Your task to perform on an android device: empty trash in the gmail app Image 0: 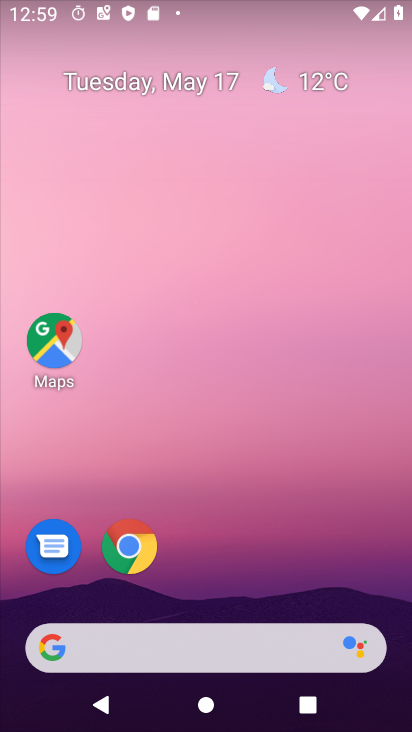
Step 0: drag from (202, 640) to (337, 169)
Your task to perform on an android device: empty trash in the gmail app Image 1: 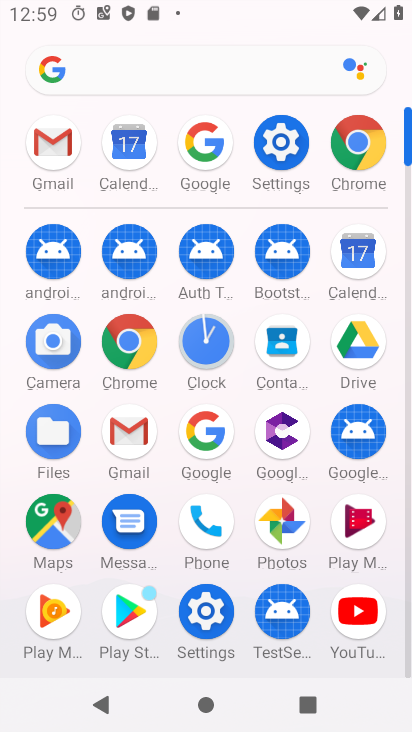
Step 1: click (42, 151)
Your task to perform on an android device: empty trash in the gmail app Image 2: 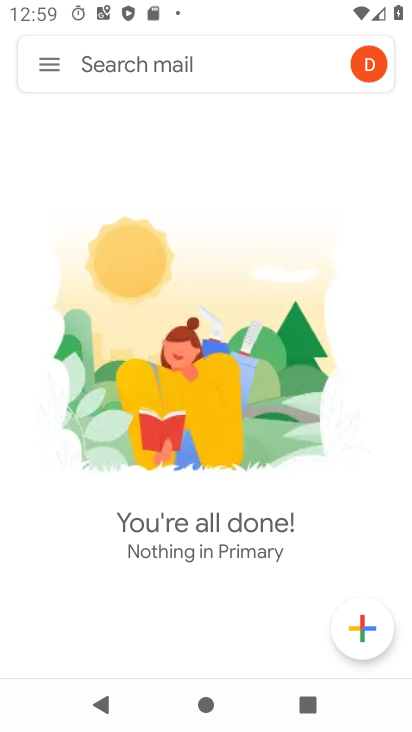
Step 2: click (53, 57)
Your task to perform on an android device: empty trash in the gmail app Image 3: 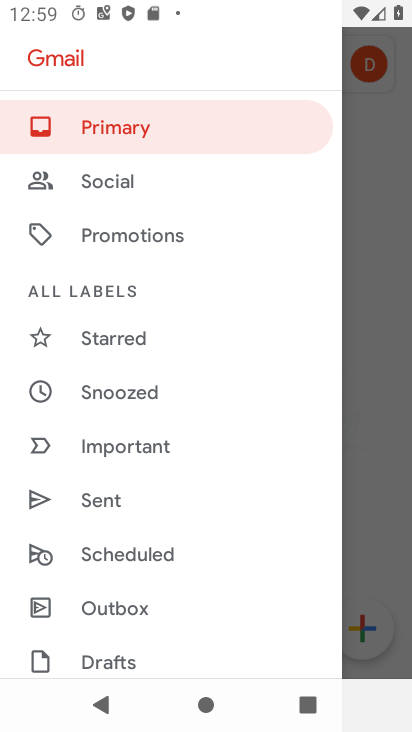
Step 3: drag from (190, 602) to (280, 249)
Your task to perform on an android device: empty trash in the gmail app Image 4: 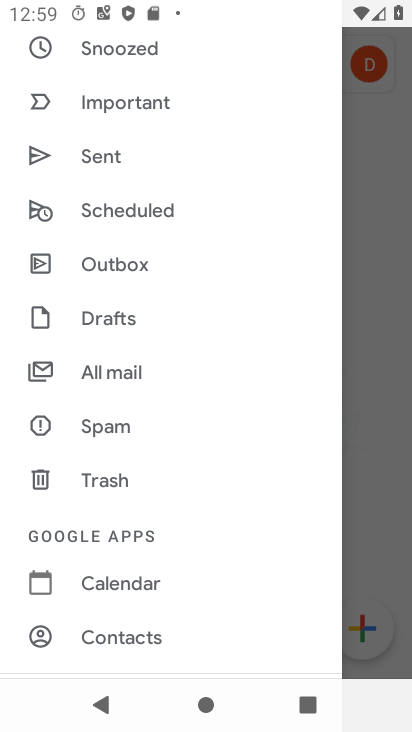
Step 4: click (98, 476)
Your task to perform on an android device: empty trash in the gmail app Image 5: 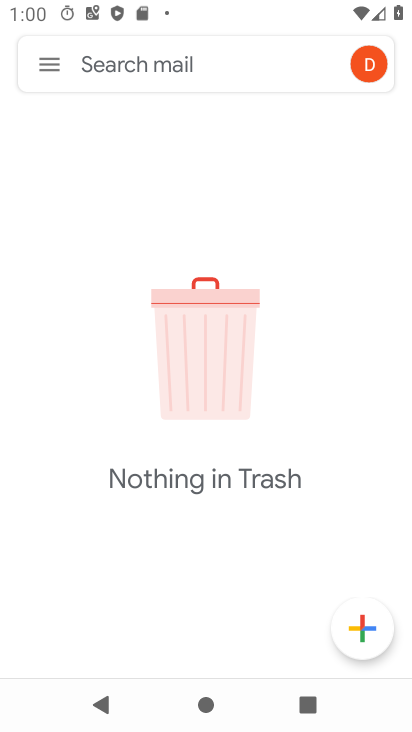
Step 5: task complete